Your task to perform on an android device: remove spam from my inbox in the gmail app Image 0: 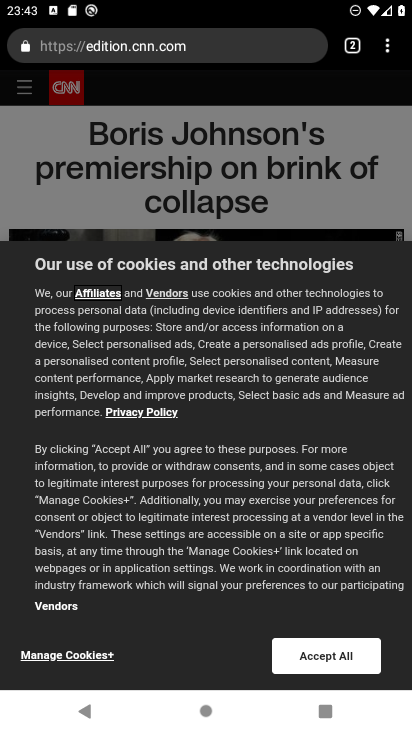
Step 0: press home button
Your task to perform on an android device: remove spam from my inbox in the gmail app Image 1: 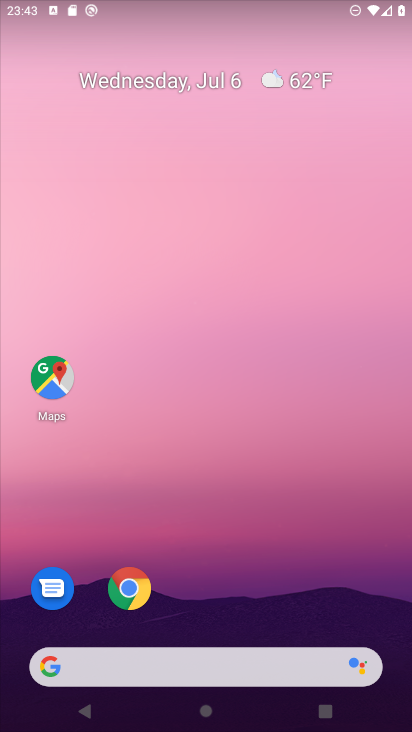
Step 1: drag from (334, 90) to (339, 17)
Your task to perform on an android device: remove spam from my inbox in the gmail app Image 2: 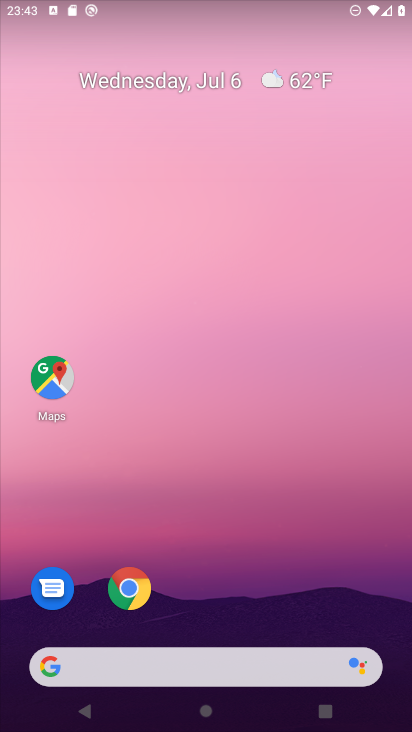
Step 2: drag from (383, 627) to (340, 142)
Your task to perform on an android device: remove spam from my inbox in the gmail app Image 3: 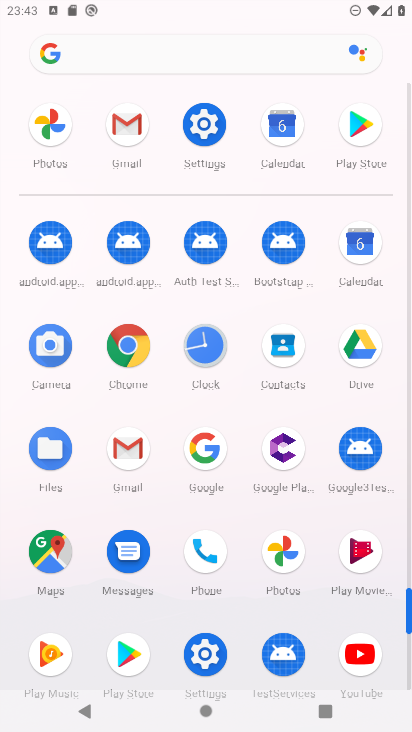
Step 3: click (125, 449)
Your task to perform on an android device: remove spam from my inbox in the gmail app Image 4: 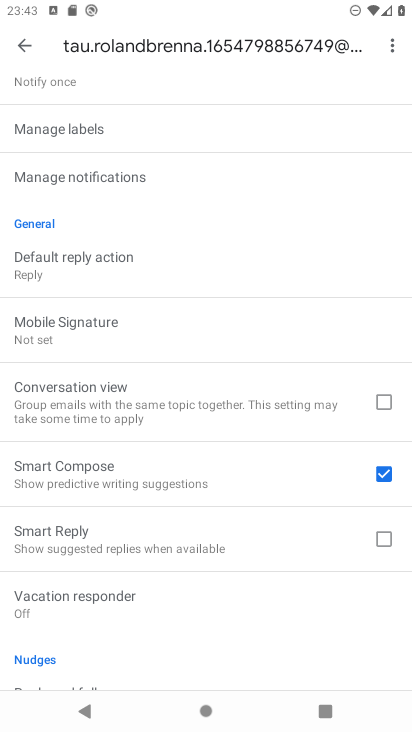
Step 4: drag from (263, 212) to (250, 494)
Your task to perform on an android device: remove spam from my inbox in the gmail app Image 5: 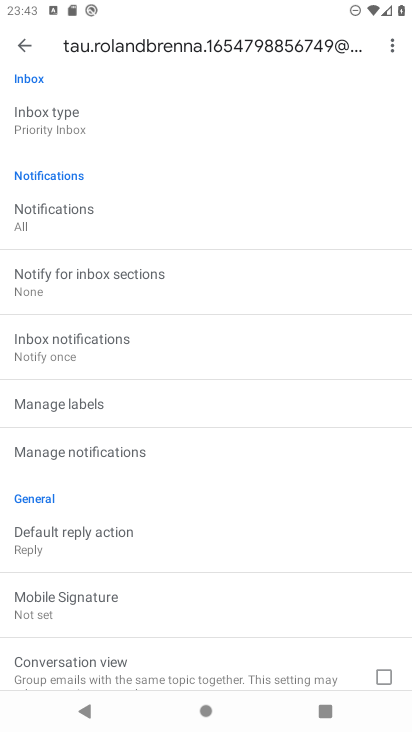
Step 5: press back button
Your task to perform on an android device: remove spam from my inbox in the gmail app Image 6: 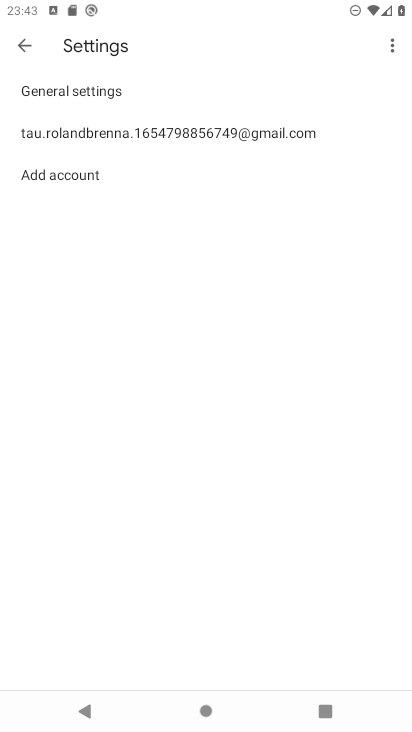
Step 6: press back button
Your task to perform on an android device: remove spam from my inbox in the gmail app Image 7: 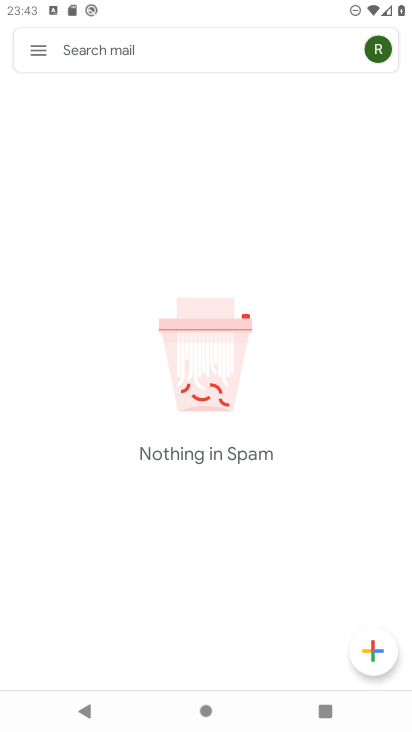
Step 7: click (34, 49)
Your task to perform on an android device: remove spam from my inbox in the gmail app Image 8: 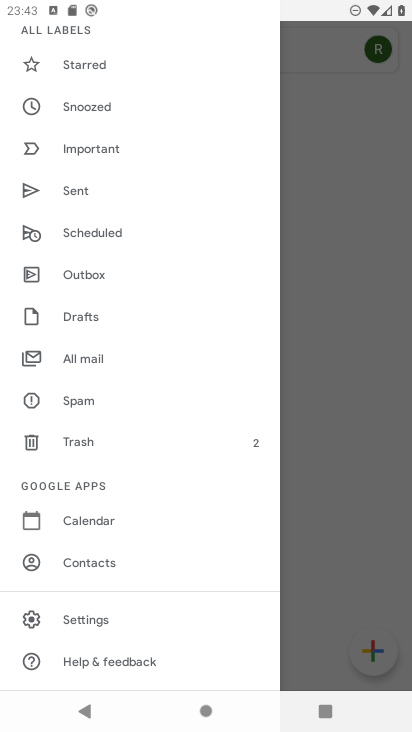
Step 8: click (79, 401)
Your task to perform on an android device: remove spam from my inbox in the gmail app Image 9: 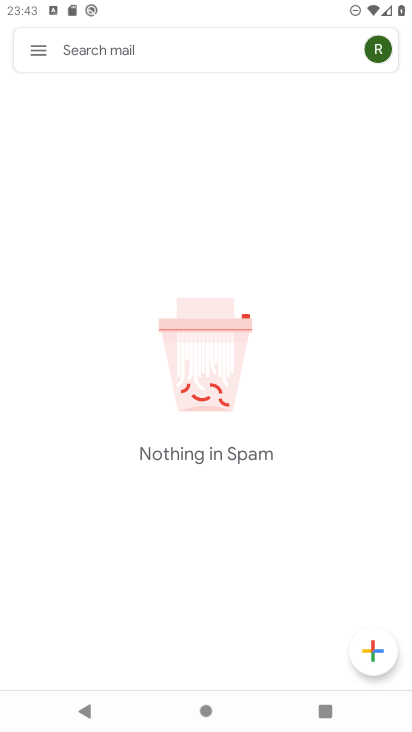
Step 9: task complete